Your task to perform on an android device: turn on javascript in the chrome app Image 0: 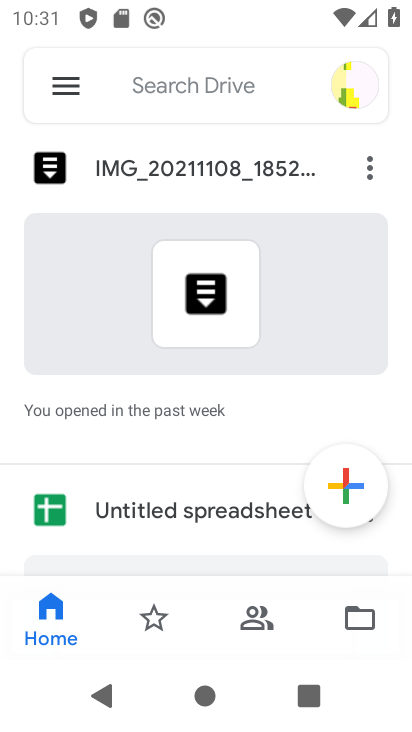
Step 0: press home button
Your task to perform on an android device: turn on javascript in the chrome app Image 1: 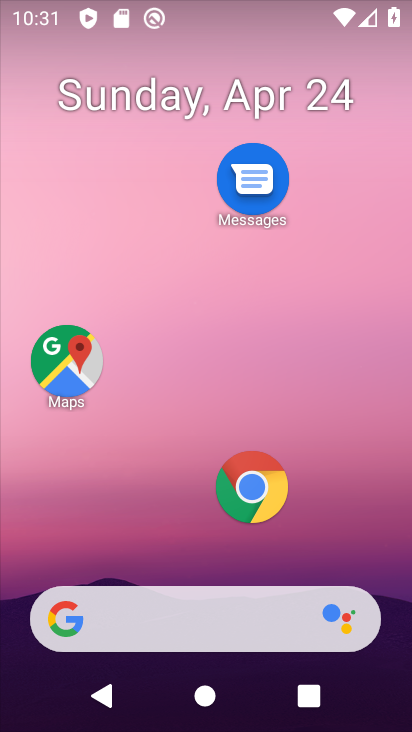
Step 1: click (262, 488)
Your task to perform on an android device: turn on javascript in the chrome app Image 2: 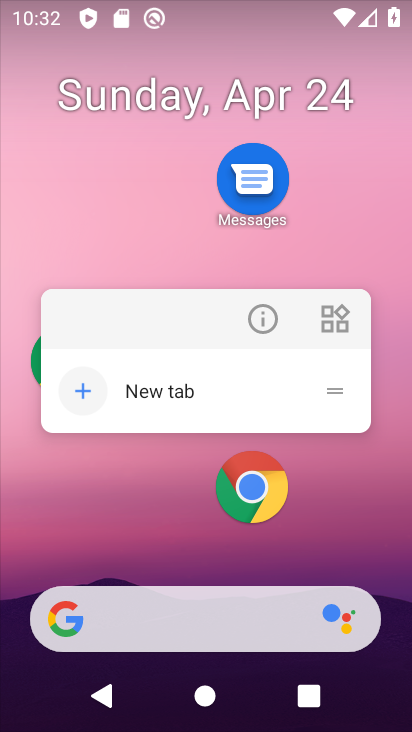
Step 2: click (266, 316)
Your task to perform on an android device: turn on javascript in the chrome app Image 3: 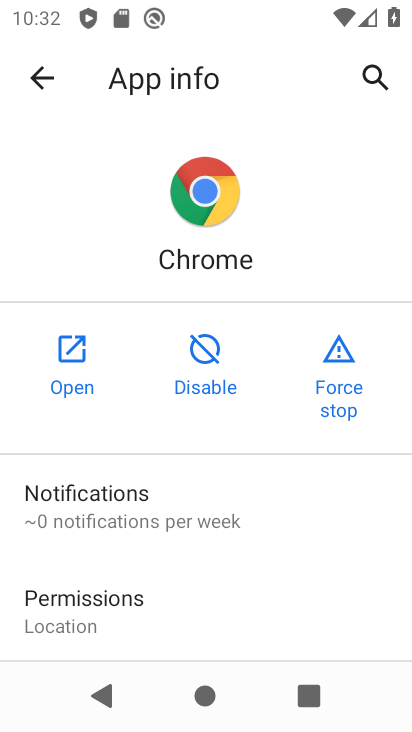
Step 3: click (57, 357)
Your task to perform on an android device: turn on javascript in the chrome app Image 4: 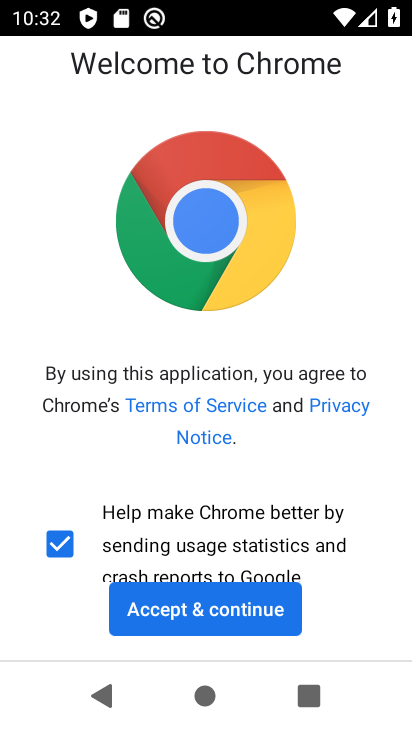
Step 4: click (214, 612)
Your task to perform on an android device: turn on javascript in the chrome app Image 5: 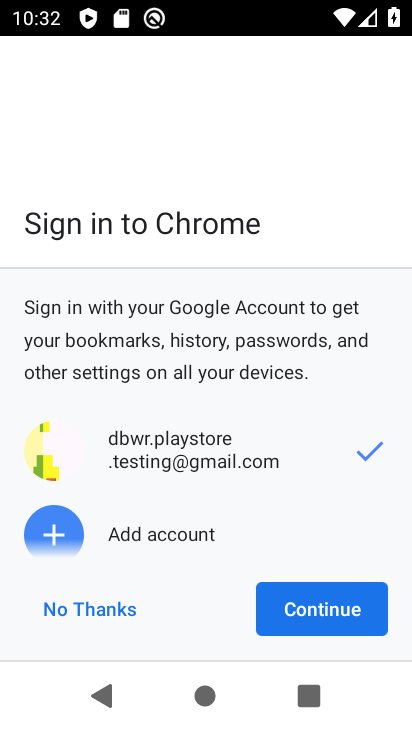
Step 5: click (303, 613)
Your task to perform on an android device: turn on javascript in the chrome app Image 6: 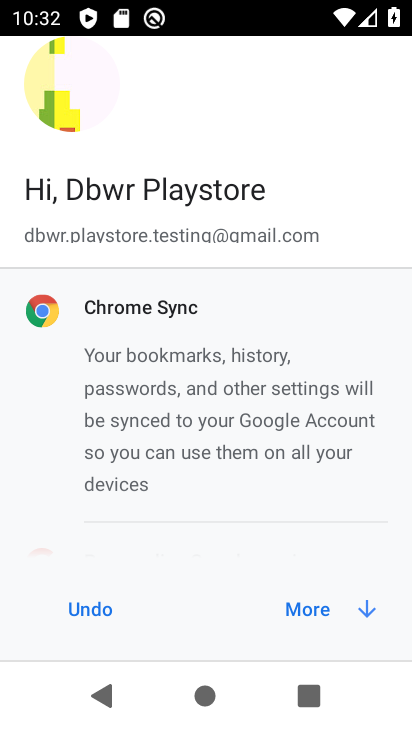
Step 6: click (301, 605)
Your task to perform on an android device: turn on javascript in the chrome app Image 7: 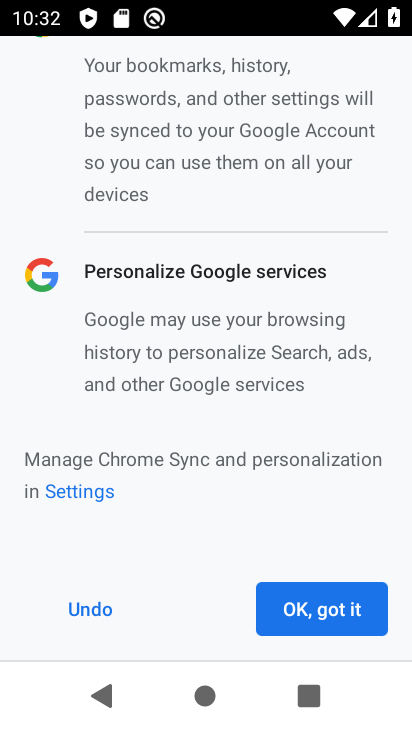
Step 7: click (305, 608)
Your task to perform on an android device: turn on javascript in the chrome app Image 8: 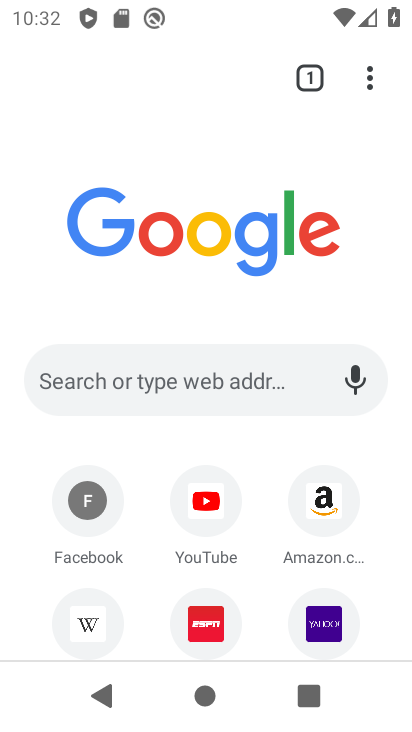
Step 8: click (371, 55)
Your task to perform on an android device: turn on javascript in the chrome app Image 9: 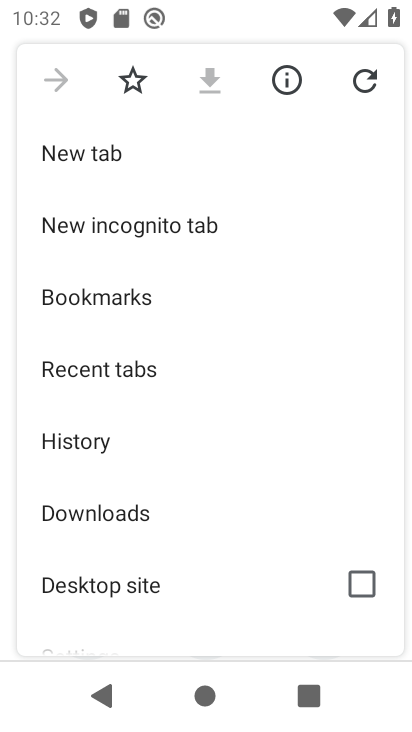
Step 9: drag from (126, 429) to (210, 47)
Your task to perform on an android device: turn on javascript in the chrome app Image 10: 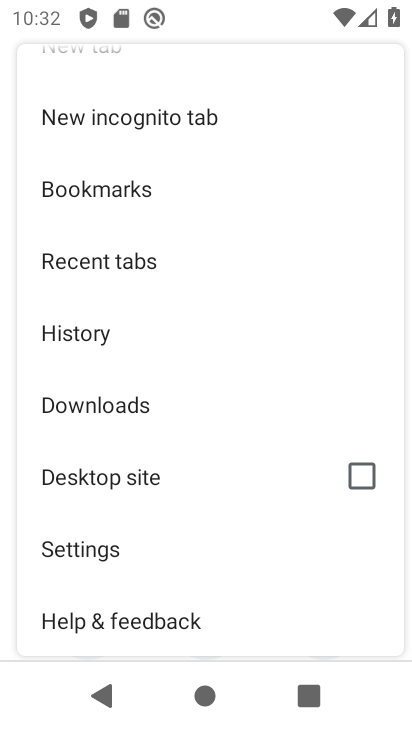
Step 10: click (106, 555)
Your task to perform on an android device: turn on javascript in the chrome app Image 11: 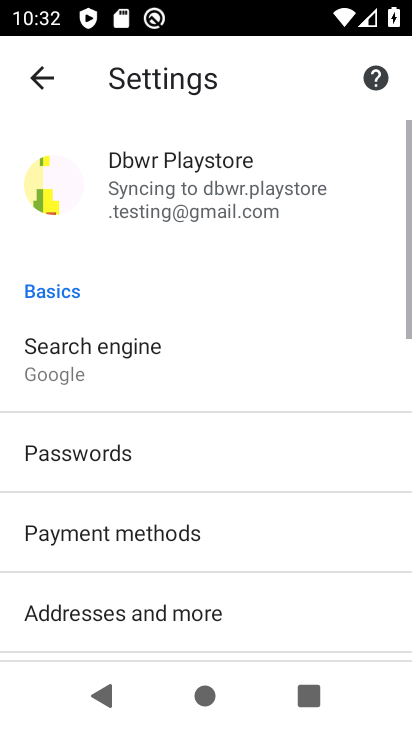
Step 11: drag from (121, 530) to (248, 74)
Your task to perform on an android device: turn on javascript in the chrome app Image 12: 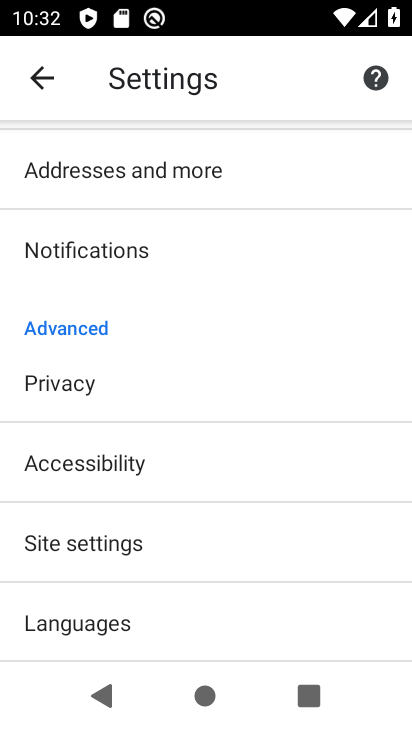
Step 12: click (131, 549)
Your task to perform on an android device: turn on javascript in the chrome app Image 13: 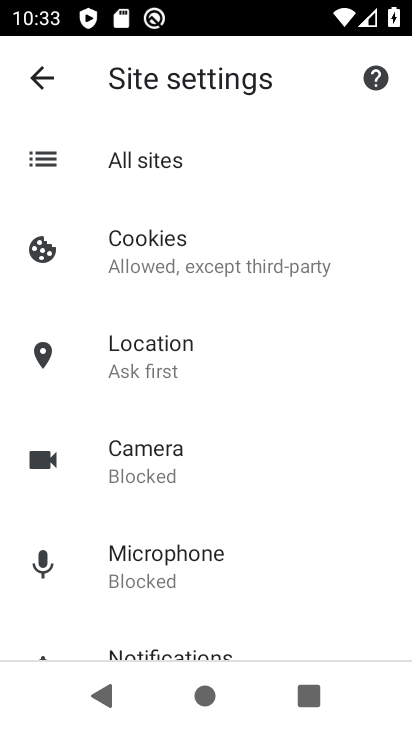
Step 13: drag from (142, 502) to (231, 189)
Your task to perform on an android device: turn on javascript in the chrome app Image 14: 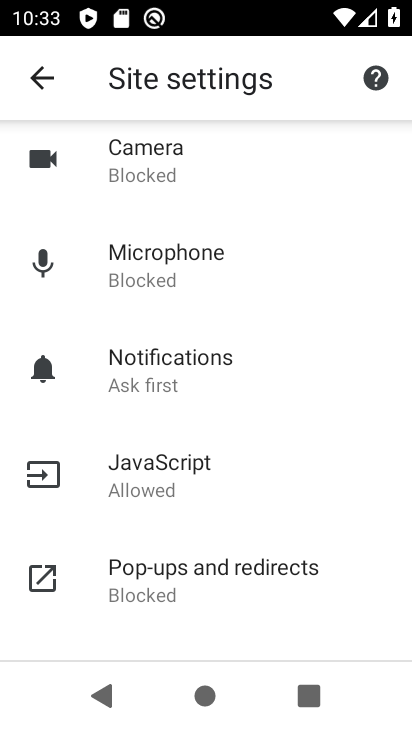
Step 14: click (155, 487)
Your task to perform on an android device: turn on javascript in the chrome app Image 15: 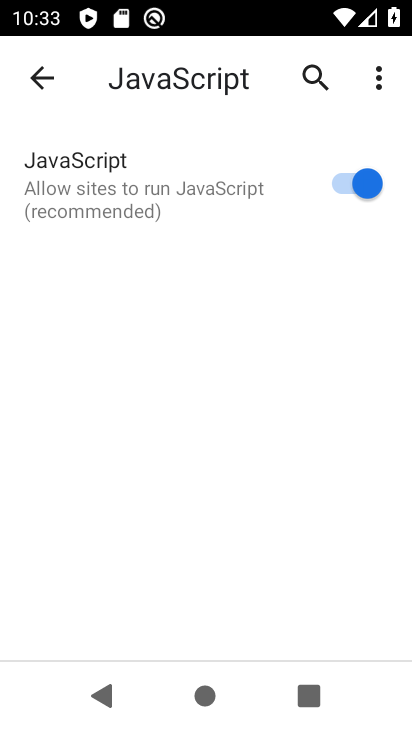
Step 15: task complete